Your task to perform on an android device: Search for Mexican restaurants on Maps Image 0: 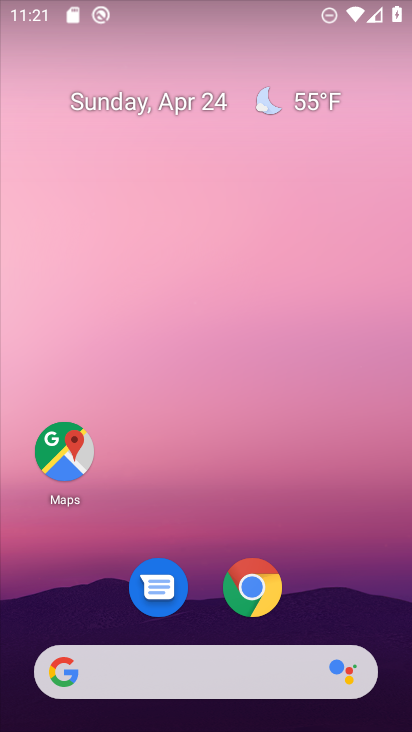
Step 0: drag from (307, 515) to (325, 58)
Your task to perform on an android device: Search for Mexican restaurants on Maps Image 1: 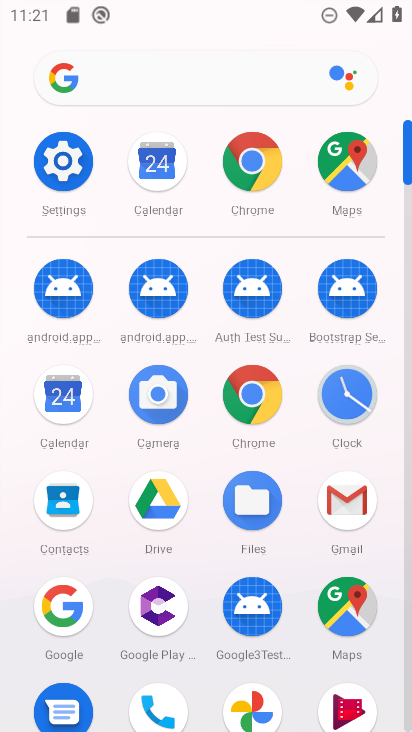
Step 1: click (351, 601)
Your task to perform on an android device: Search for Mexican restaurants on Maps Image 2: 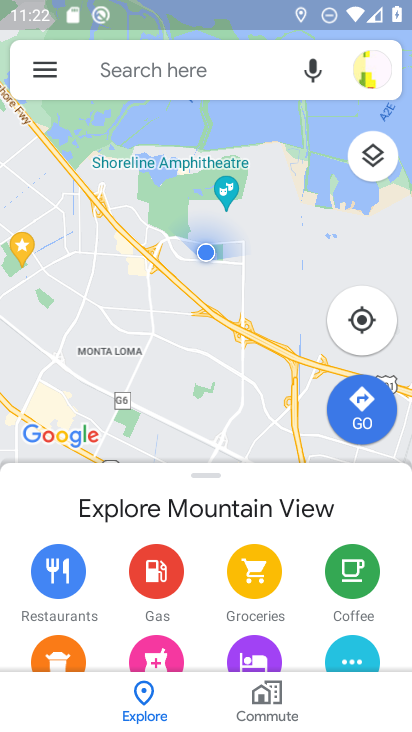
Step 2: click (196, 56)
Your task to perform on an android device: Search for Mexican restaurants on Maps Image 3: 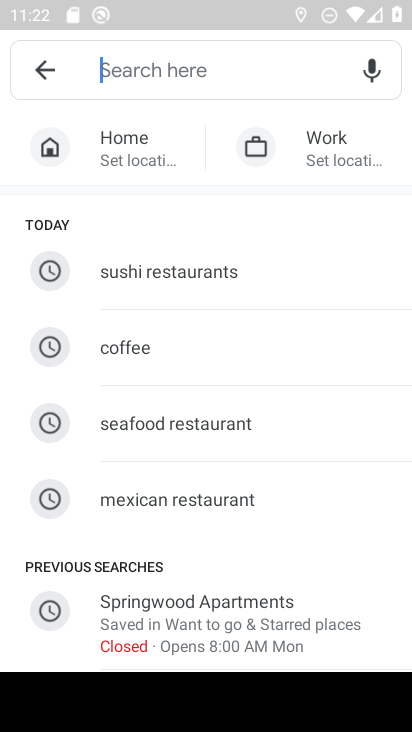
Step 3: type "Mexican restaurants"
Your task to perform on an android device: Search for Mexican restaurants on Maps Image 4: 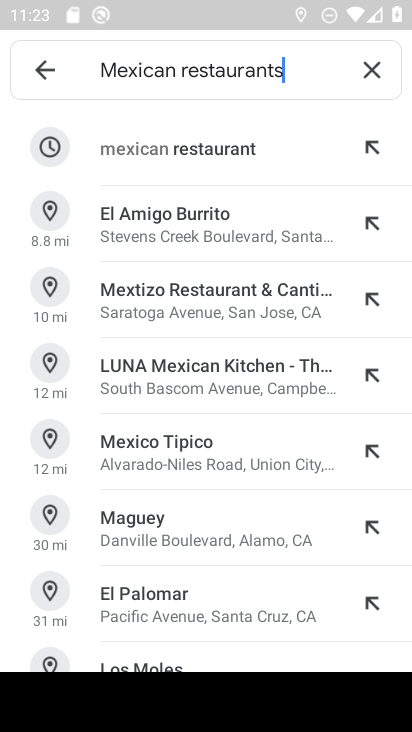
Step 4: press enter
Your task to perform on an android device: Search for Mexican restaurants on Maps Image 5: 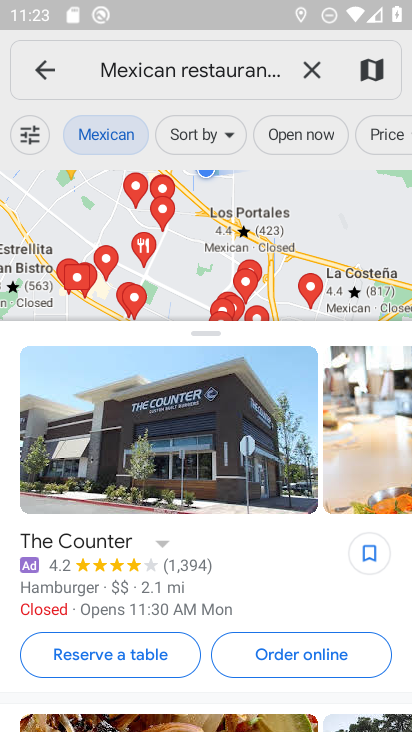
Step 5: task complete